Your task to perform on an android device: turn off priority inbox in the gmail app Image 0: 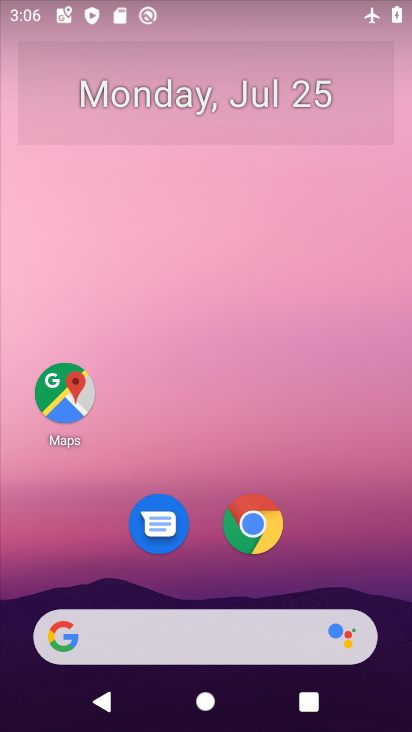
Step 0: drag from (317, 559) to (313, 104)
Your task to perform on an android device: turn off priority inbox in the gmail app Image 1: 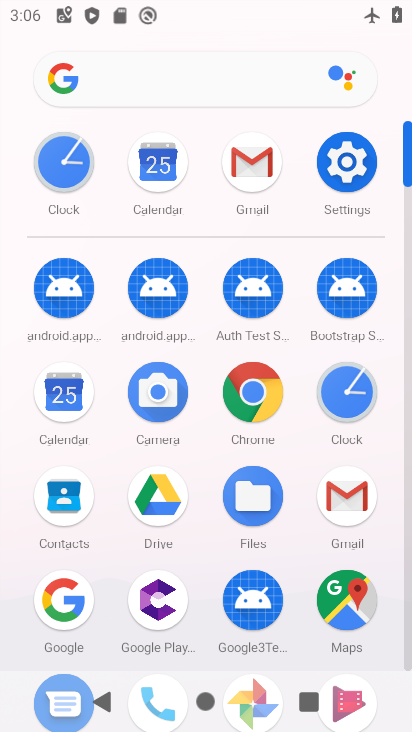
Step 1: click (275, 169)
Your task to perform on an android device: turn off priority inbox in the gmail app Image 2: 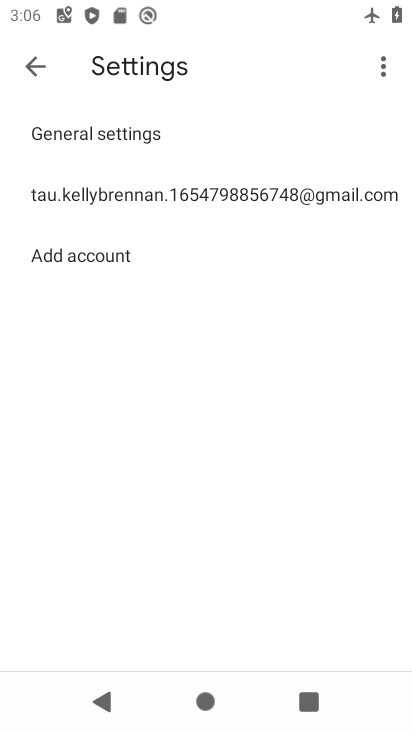
Step 2: click (185, 194)
Your task to perform on an android device: turn off priority inbox in the gmail app Image 3: 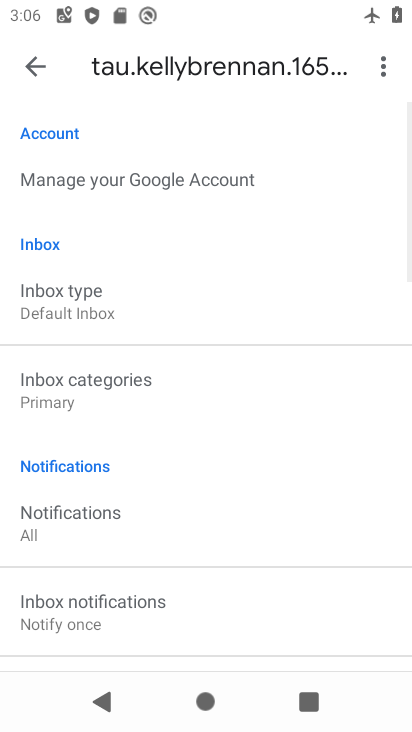
Step 3: click (94, 294)
Your task to perform on an android device: turn off priority inbox in the gmail app Image 4: 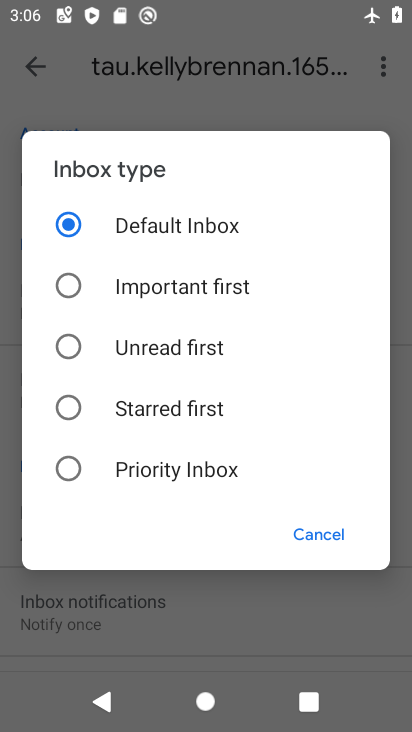
Step 4: click (306, 530)
Your task to perform on an android device: turn off priority inbox in the gmail app Image 5: 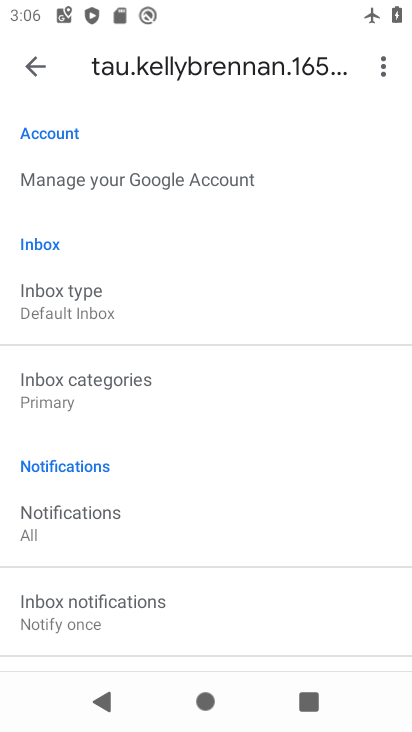
Step 5: task complete